Your task to perform on an android device: Search for "bose soundsport free" on target.com, select the first entry, and add it to the cart. Image 0: 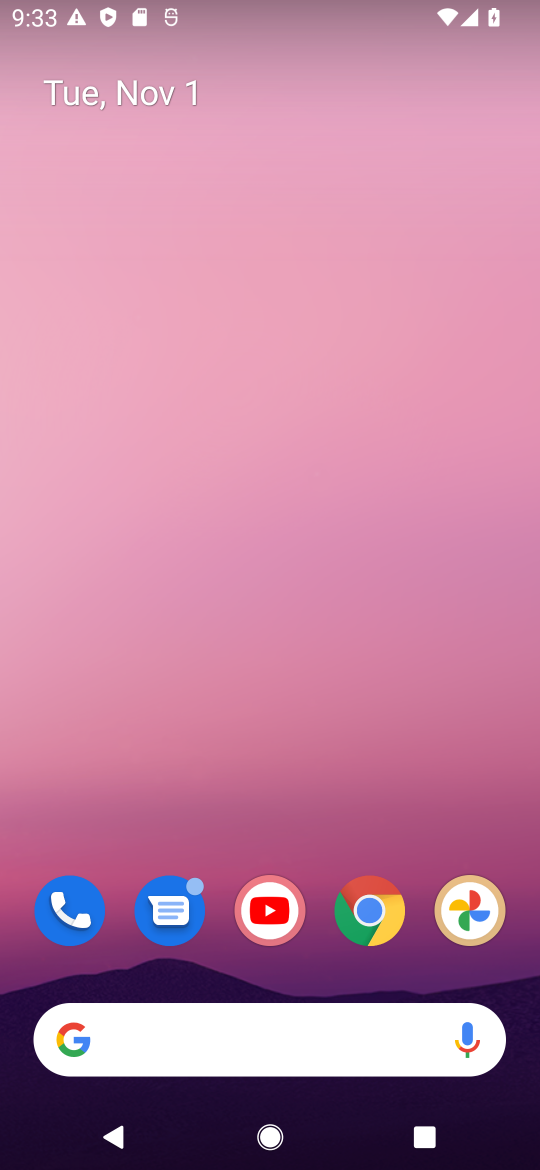
Step 0: click (377, 914)
Your task to perform on an android device: Search for "bose soundsport free" on target.com, select the first entry, and add it to the cart. Image 1: 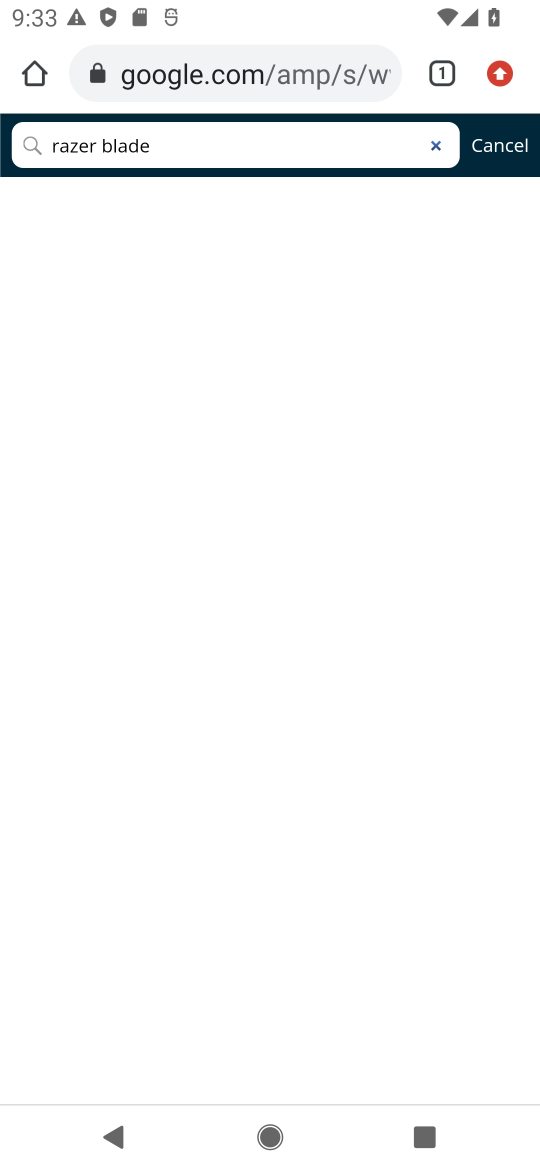
Step 1: click (229, 84)
Your task to perform on an android device: Search for "bose soundsport free" on target.com, select the first entry, and add it to the cart. Image 2: 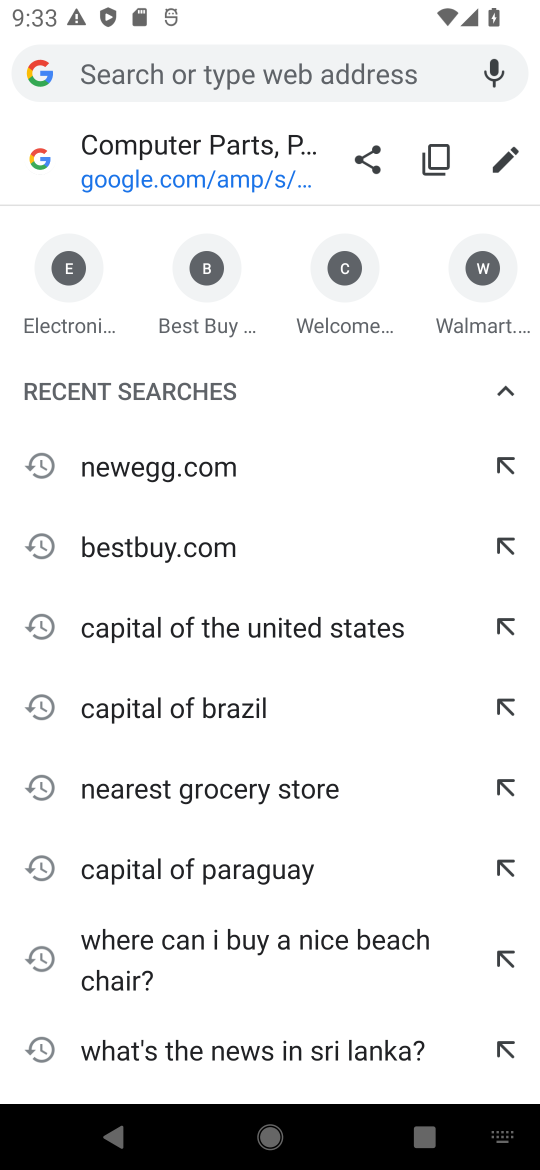
Step 2: type "target.com"
Your task to perform on an android device: Search for "bose soundsport free" on target.com, select the first entry, and add it to the cart. Image 3: 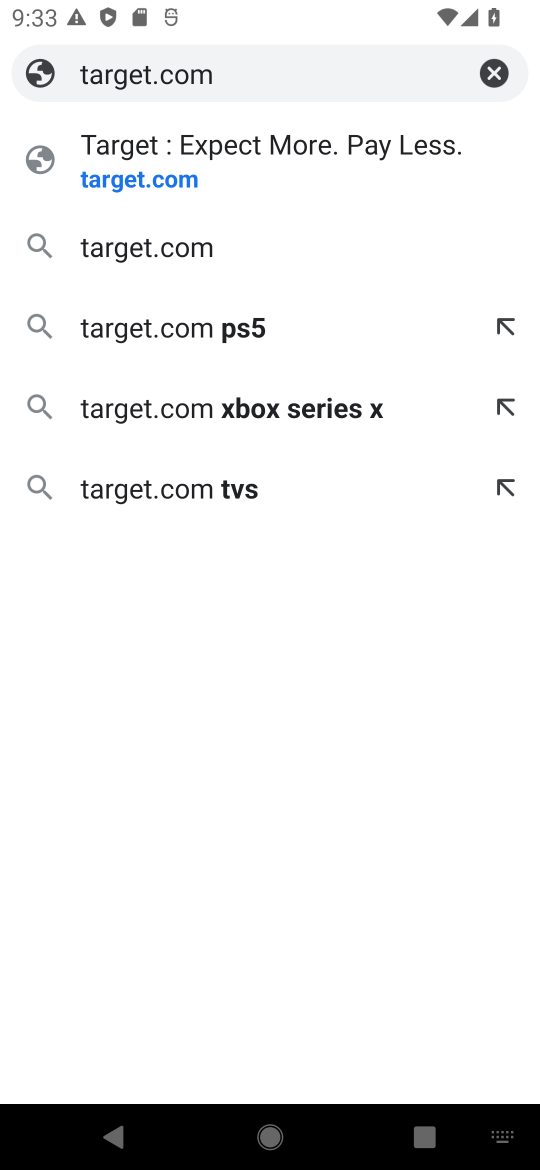
Step 3: click (147, 187)
Your task to perform on an android device: Search for "bose soundsport free" on target.com, select the first entry, and add it to the cart. Image 4: 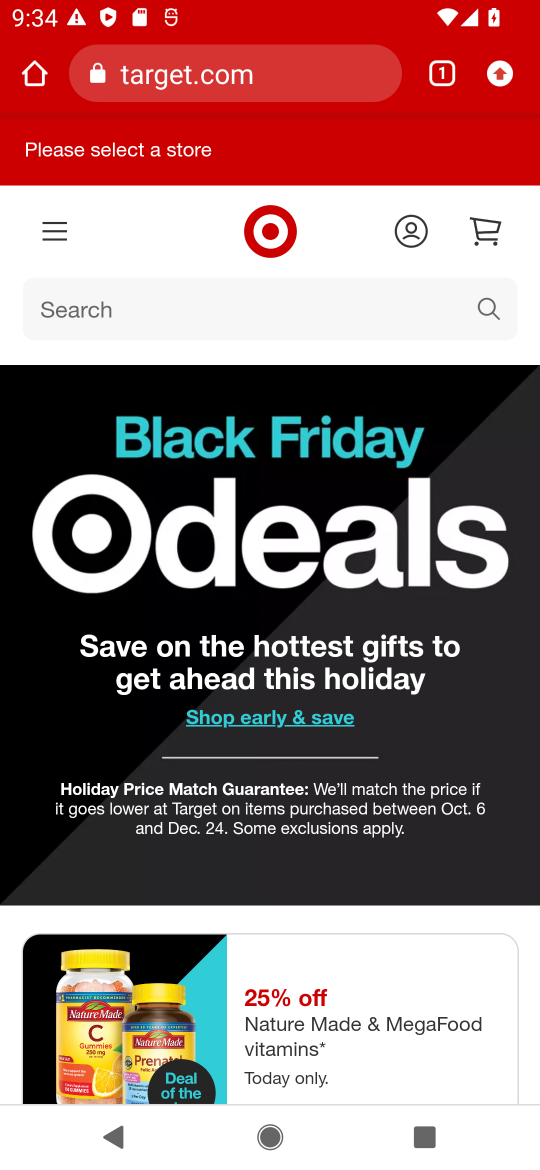
Step 4: click (491, 309)
Your task to perform on an android device: Search for "bose soundsport free" on target.com, select the first entry, and add it to the cart. Image 5: 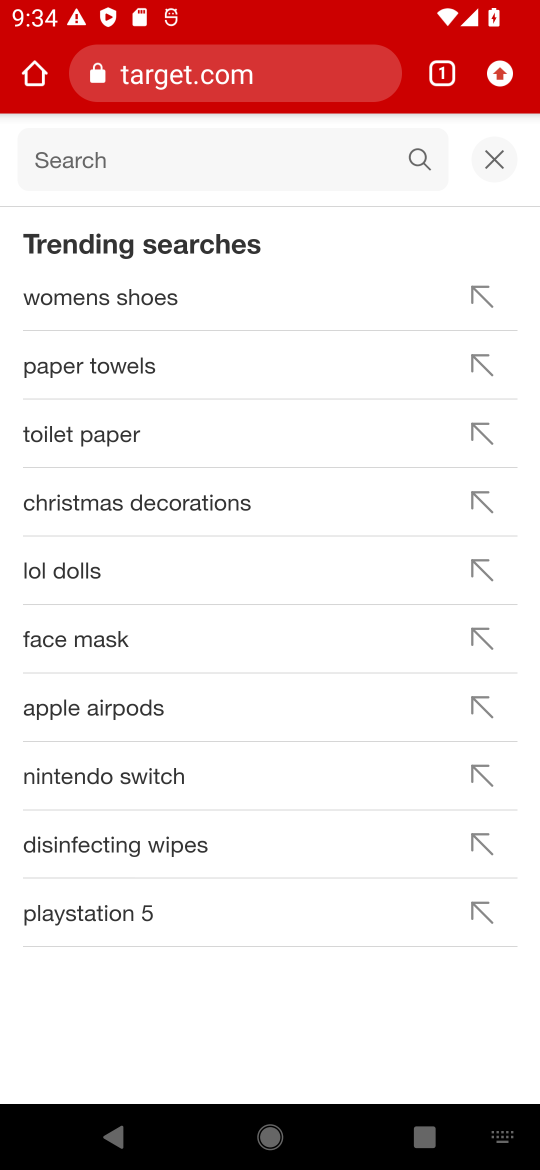
Step 5: type "bose soundsport free"
Your task to perform on an android device: Search for "bose soundsport free" on target.com, select the first entry, and add it to the cart. Image 6: 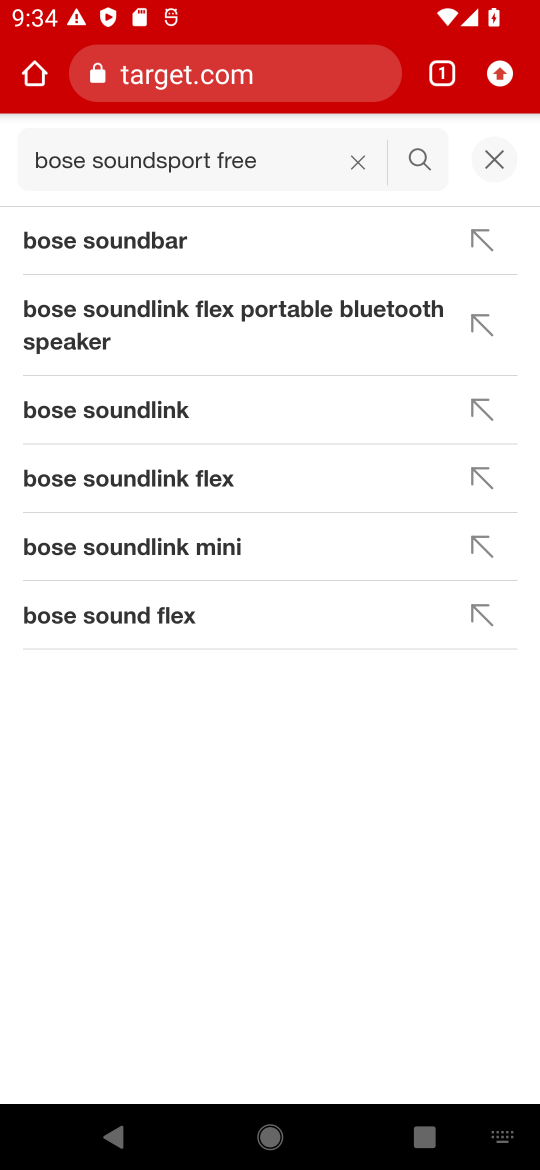
Step 6: click (412, 159)
Your task to perform on an android device: Search for "bose soundsport free" on target.com, select the first entry, and add it to the cart. Image 7: 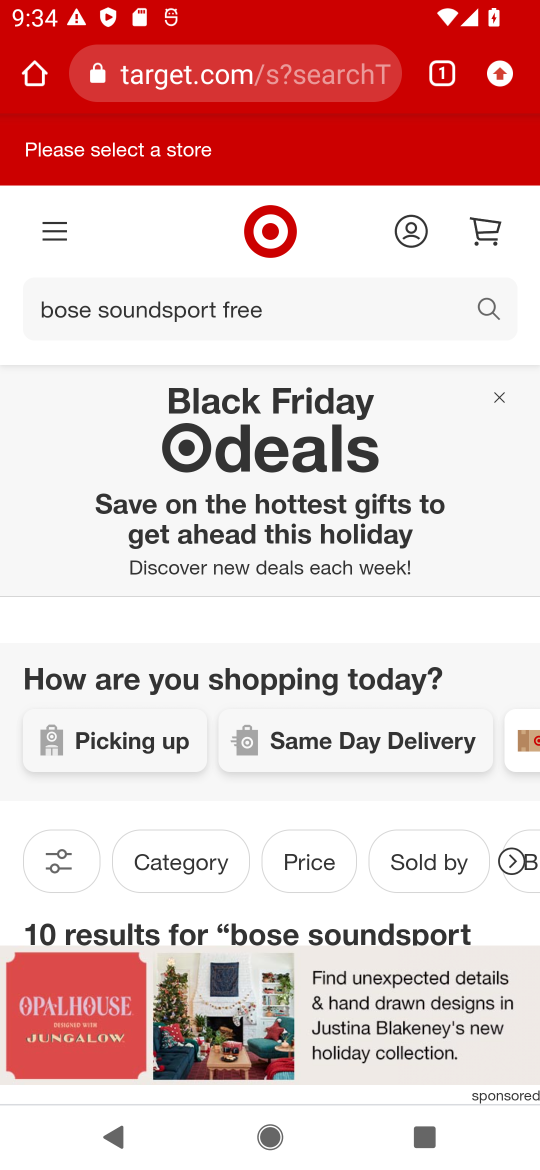
Step 7: drag from (250, 768) to (257, 333)
Your task to perform on an android device: Search for "bose soundsport free" on target.com, select the first entry, and add it to the cart. Image 8: 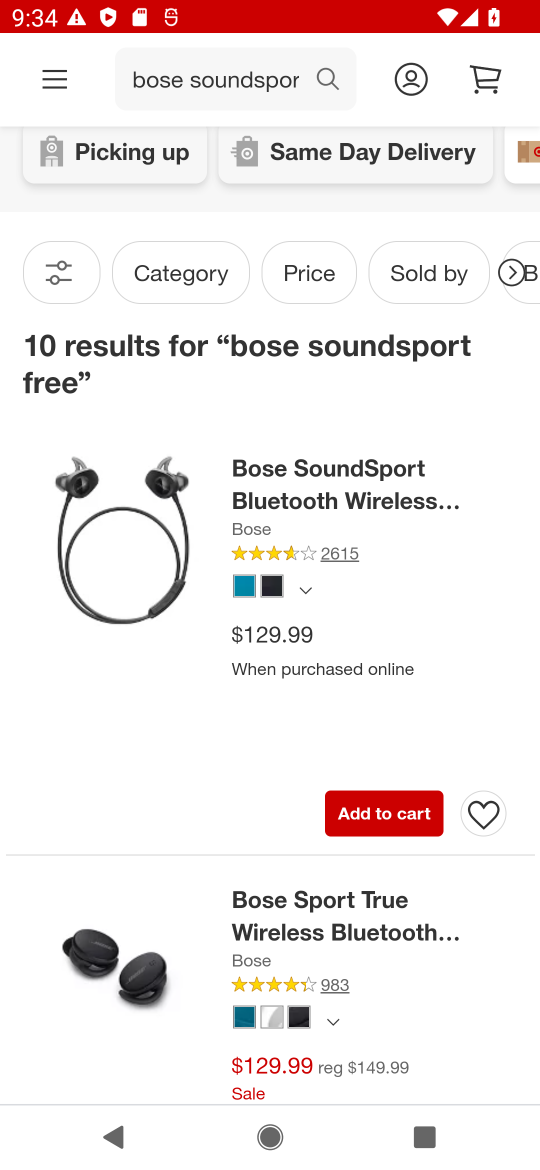
Step 8: drag from (230, 729) to (251, 460)
Your task to perform on an android device: Search for "bose soundsport free" on target.com, select the first entry, and add it to the cart. Image 9: 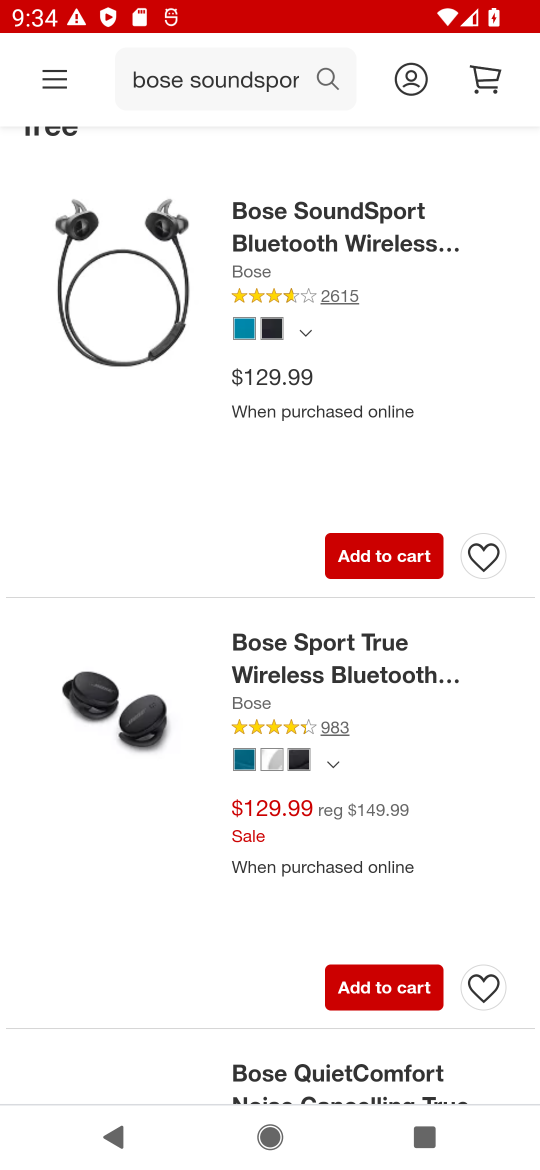
Step 9: click (365, 539)
Your task to perform on an android device: Search for "bose soundsport free" on target.com, select the first entry, and add it to the cart. Image 10: 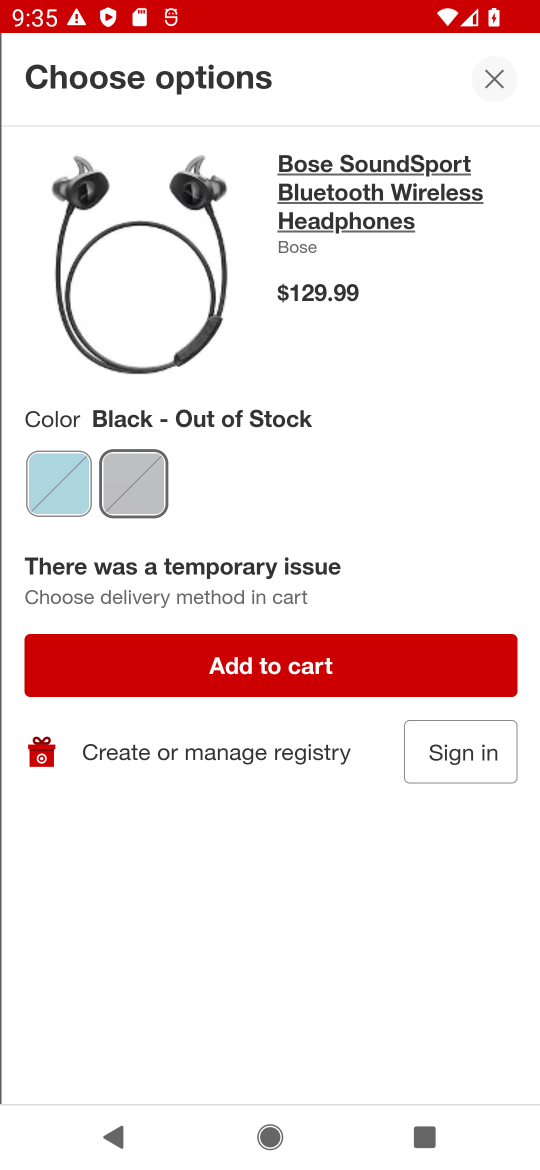
Step 10: click (258, 660)
Your task to perform on an android device: Search for "bose soundsport free" on target.com, select the first entry, and add it to the cart. Image 11: 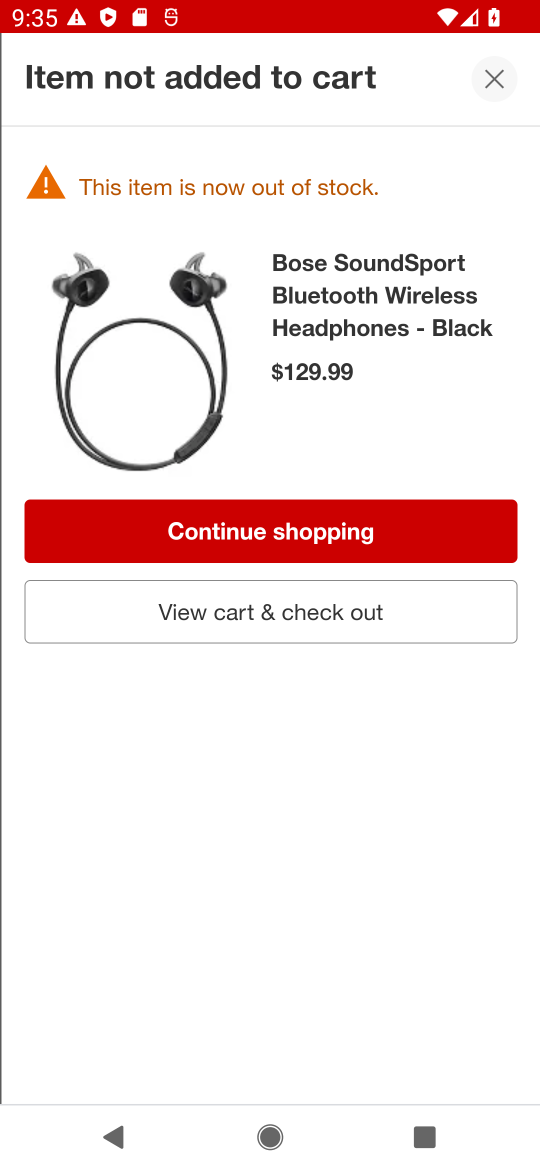
Step 11: click (276, 667)
Your task to perform on an android device: Search for "bose soundsport free" on target.com, select the first entry, and add it to the cart. Image 12: 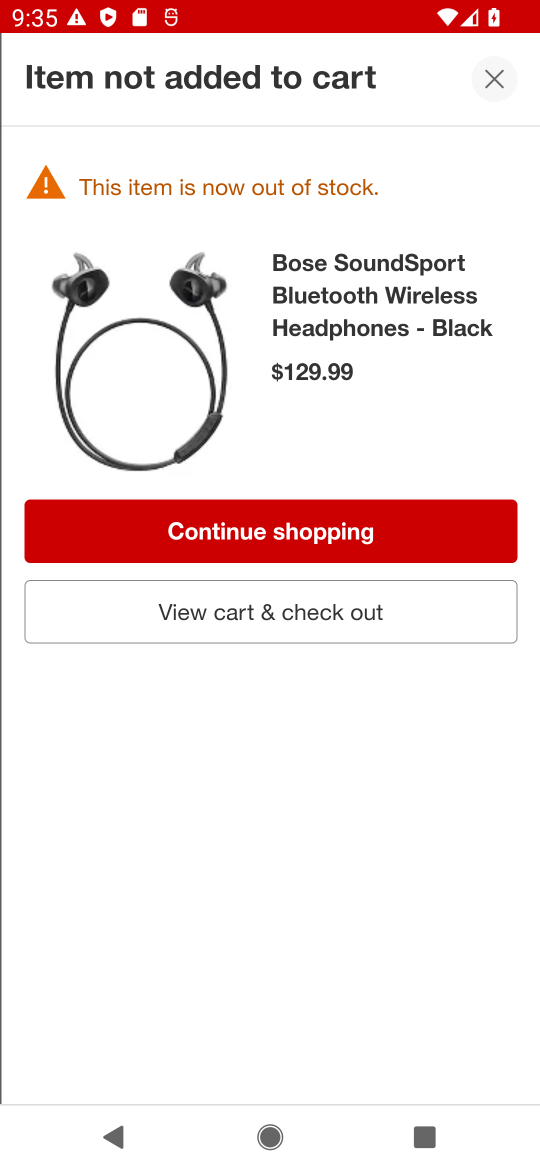
Step 12: click (255, 610)
Your task to perform on an android device: Search for "bose soundsport free" on target.com, select the first entry, and add it to the cart. Image 13: 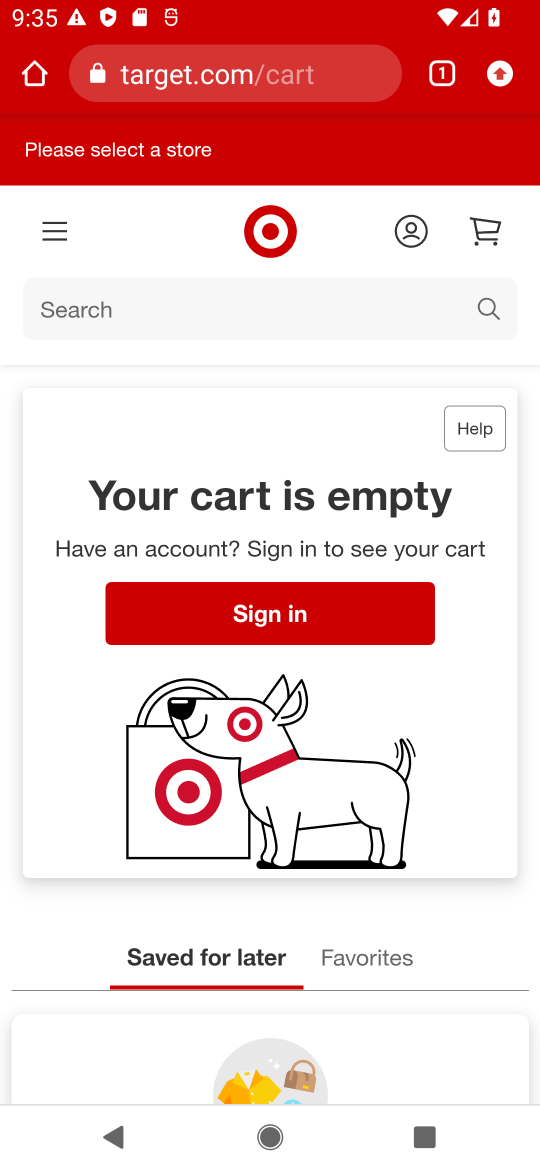
Step 13: task complete